Your task to perform on an android device: Open the phone app and click the voicemail tab. Image 0: 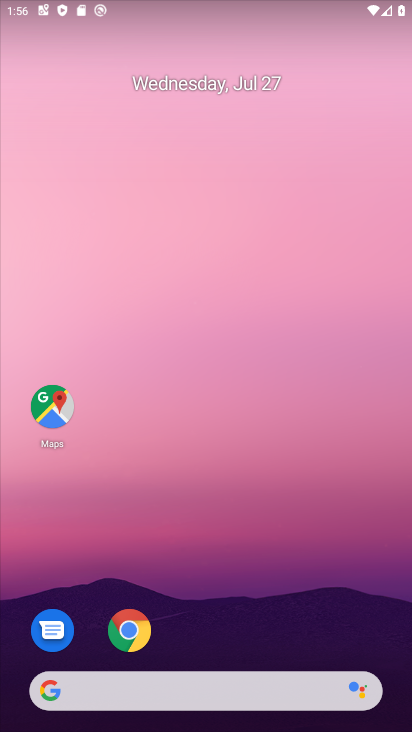
Step 0: drag from (369, 633) to (333, 168)
Your task to perform on an android device: Open the phone app and click the voicemail tab. Image 1: 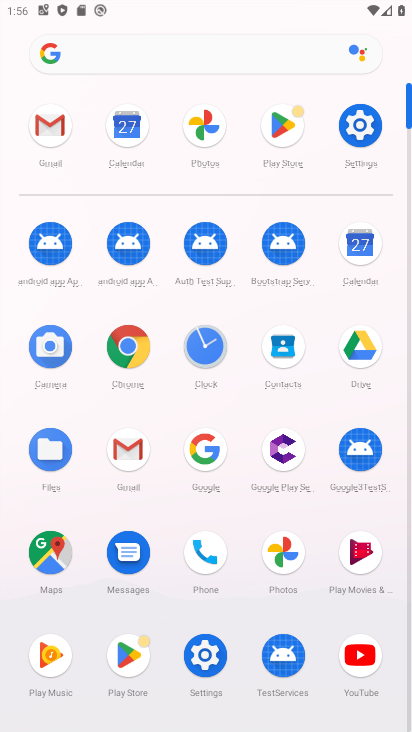
Step 1: click (204, 550)
Your task to perform on an android device: Open the phone app and click the voicemail tab. Image 2: 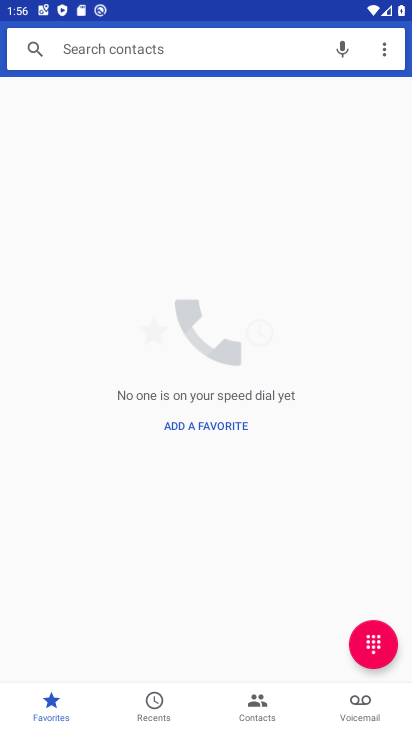
Step 2: click (357, 716)
Your task to perform on an android device: Open the phone app and click the voicemail tab. Image 3: 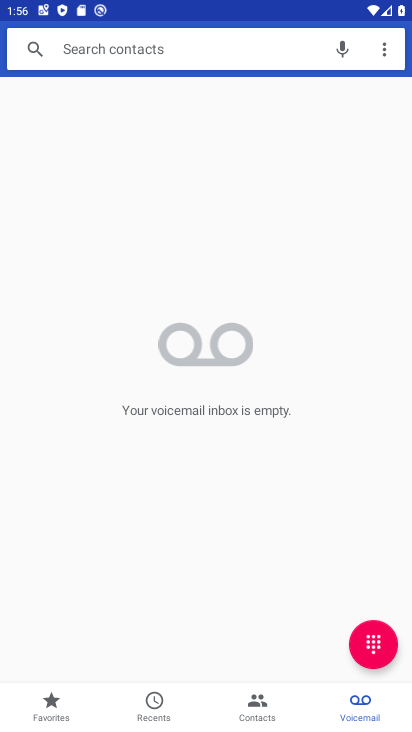
Step 3: task complete